Your task to perform on an android device: snooze an email in the gmail app Image 0: 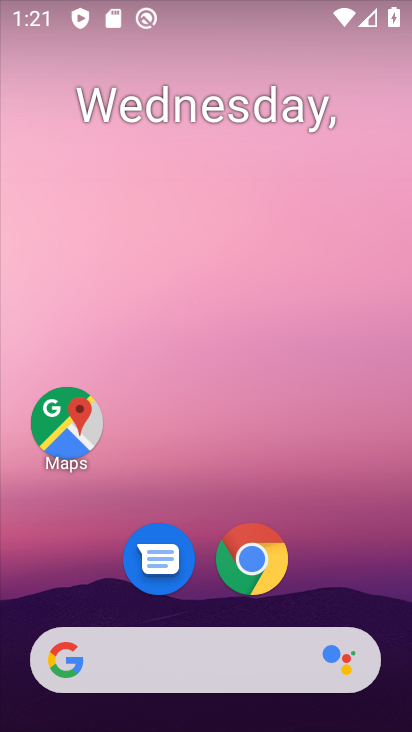
Step 0: drag from (212, 356) to (240, 97)
Your task to perform on an android device: snooze an email in the gmail app Image 1: 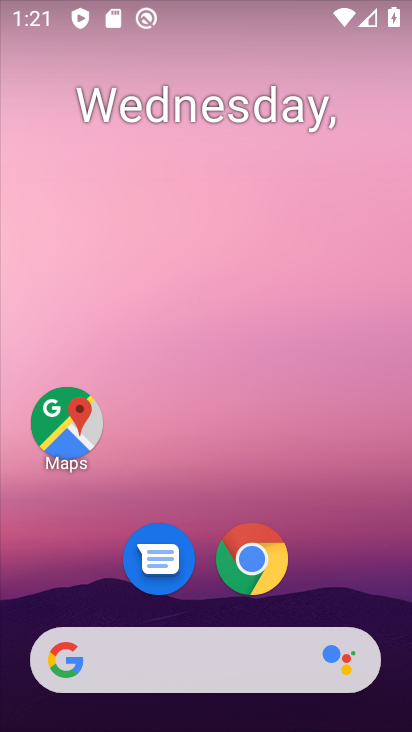
Step 1: drag from (201, 431) to (244, 0)
Your task to perform on an android device: snooze an email in the gmail app Image 2: 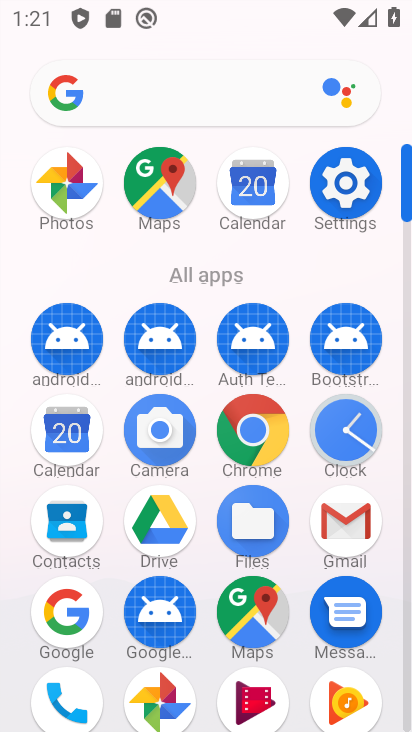
Step 2: click (343, 522)
Your task to perform on an android device: snooze an email in the gmail app Image 3: 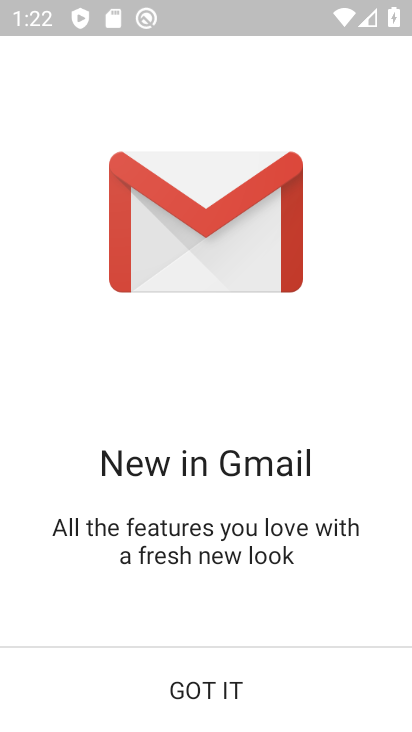
Step 3: click (207, 685)
Your task to perform on an android device: snooze an email in the gmail app Image 4: 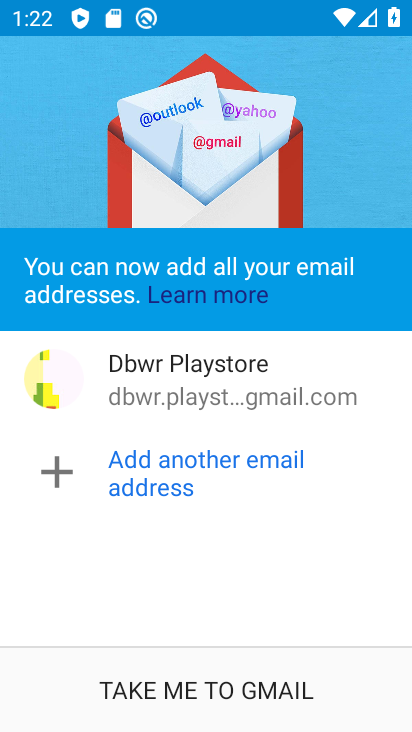
Step 4: click (207, 685)
Your task to perform on an android device: snooze an email in the gmail app Image 5: 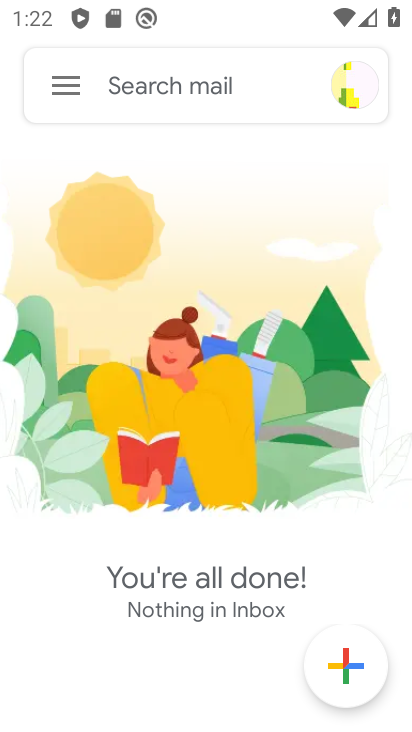
Step 5: task complete